Your task to perform on an android device: Open the map Image 0: 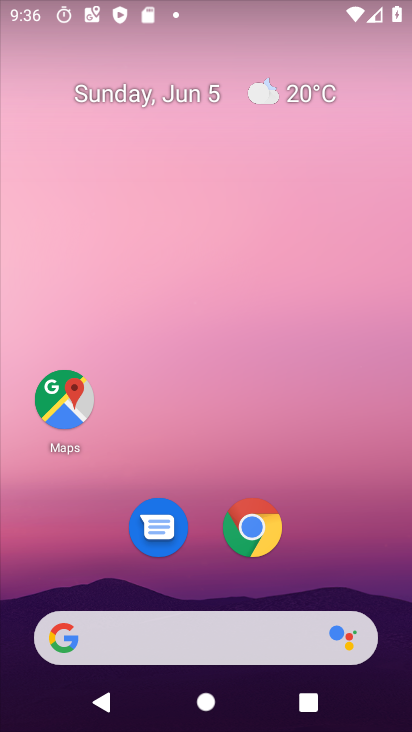
Step 0: drag from (350, 203) to (337, 13)
Your task to perform on an android device: Open the map Image 1: 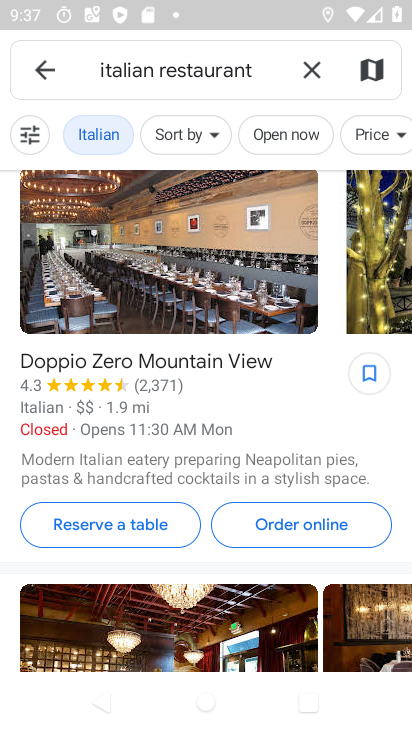
Step 1: press home button
Your task to perform on an android device: Open the map Image 2: 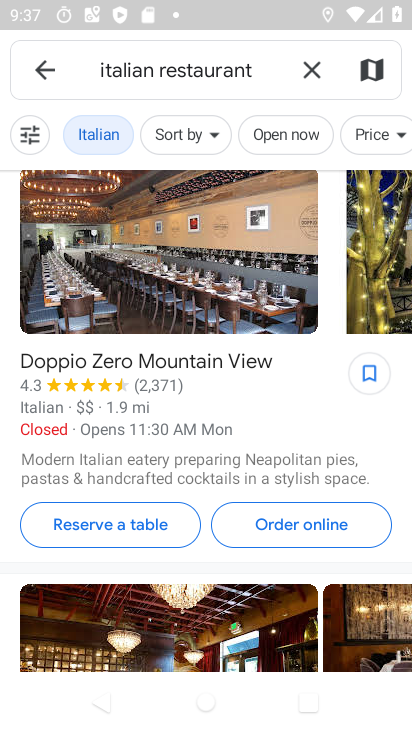
Step 2: drag from (337, 13) to (410, 398)
Your task to perform on an android device: Open the map Image 3: 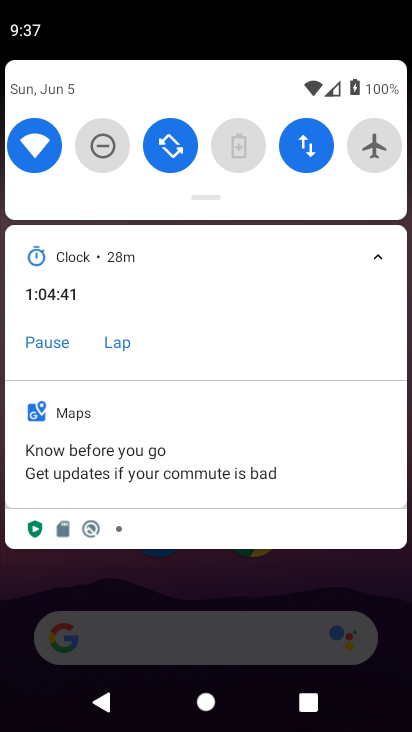
Step 3: drag from (334, 534) to (335, 19)
Your task to perform on an android device: Open the map Image 4: 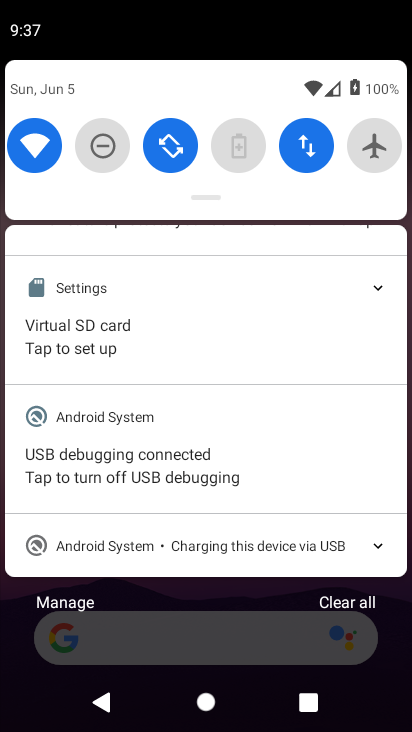
Step 4: drag from (255, 565) to (201, 2)
Your task to perform on an android device: Open the map Image 5: 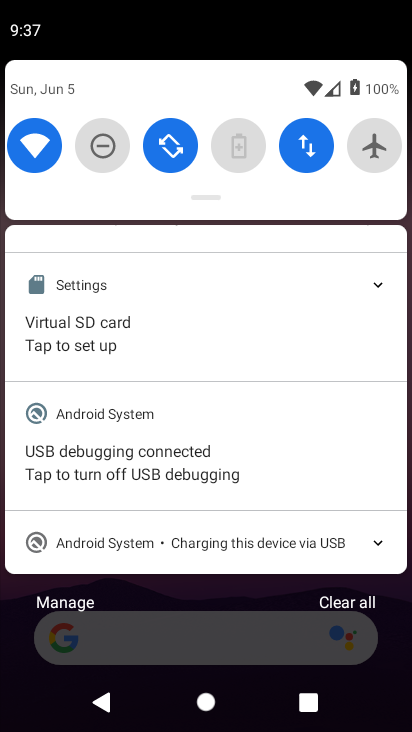
Step 5: drag from (259, 436) to (290, 3)
Your task to perform on an android device: Open the map Image 6: 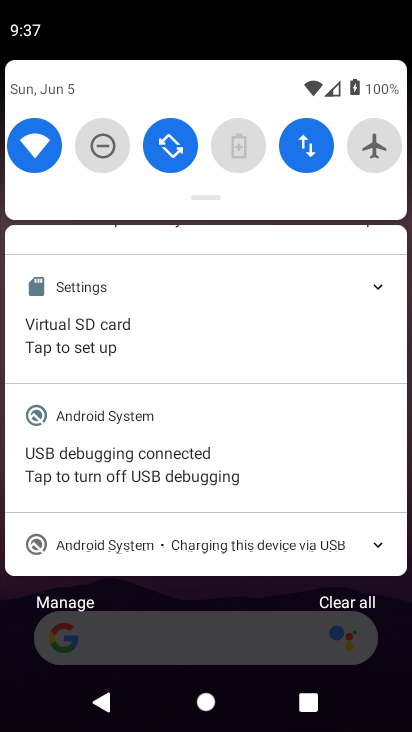
Step 6: press home button
Your task to perform on an android device: Open the map Image 7: 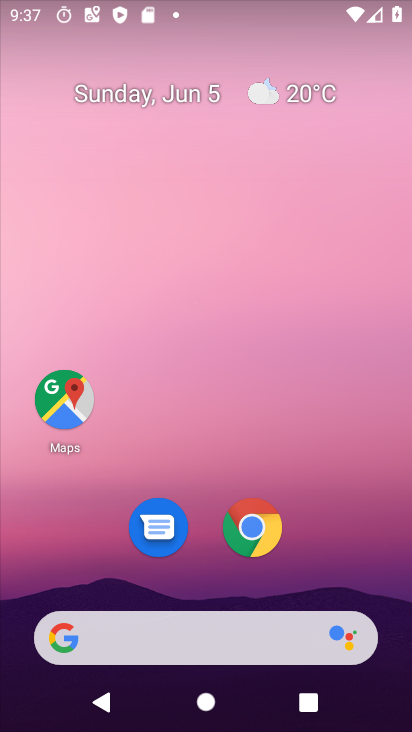
Step 7: drag from (346, 426) to (104, 12)
Your task to perform on an android device: Open the map Image 8: 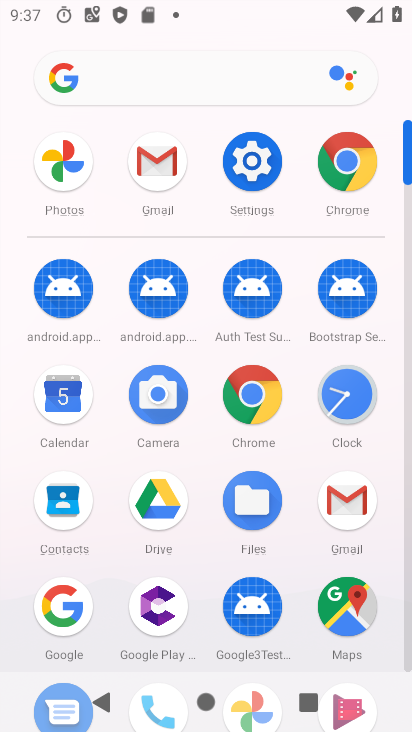
Step 8: click (345, 617)
Your task to perform on an android device: Open the map Image 9: 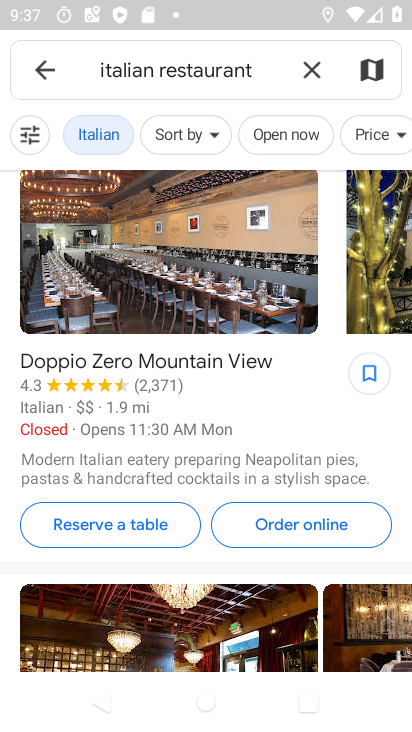
Step 9: task complete